Your task to perform on an android device: Search for sushi restaurants on Maps Image 0: 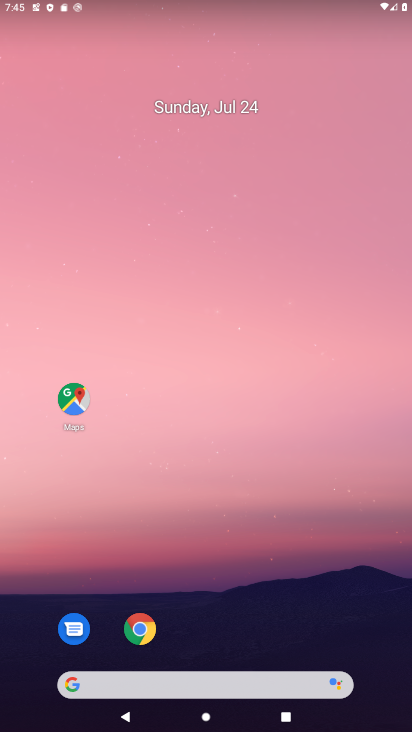
Step 0: press home button
Your task to perform on an android device: Search for sushi restaurants on Maps Image 1: 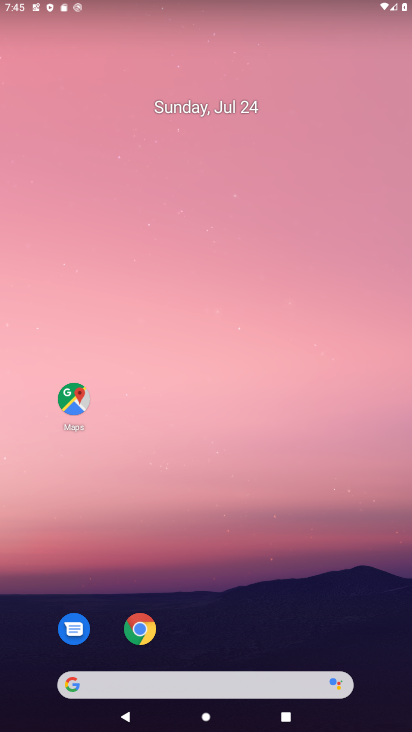
Step 1: drag from (368, 634) to (355, 101)
Your task to perform on an android device: Search for sushi restaurants on Maps Image 2: 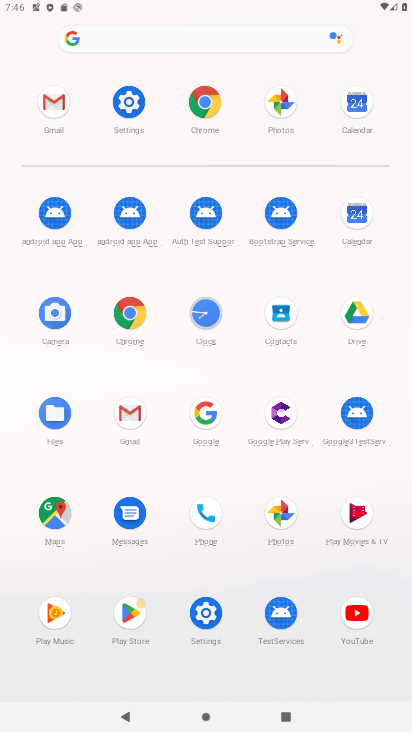
Step 2: click (58, 516)
Your task to perform on an android device: Search for sushi restaurants on Maps Image 3: 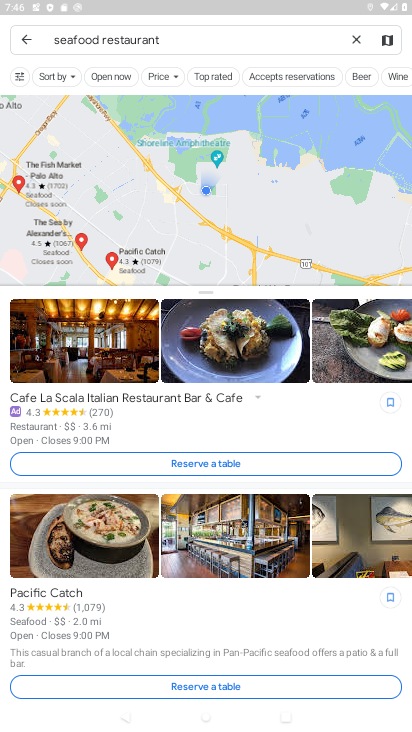
Step 3: press back button
Your task to perform on an android device: Search for sushi restaurants on Maps Image 4: 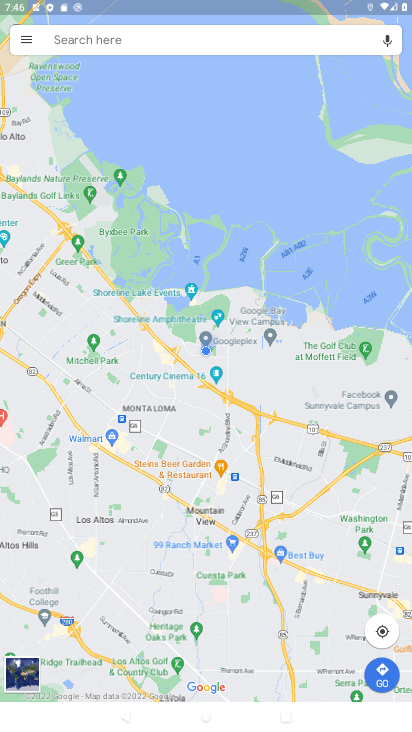
Step 4: click (252, 43)
Your task to perform on an android device: Search for sushi restaurants on Maps Image 5: 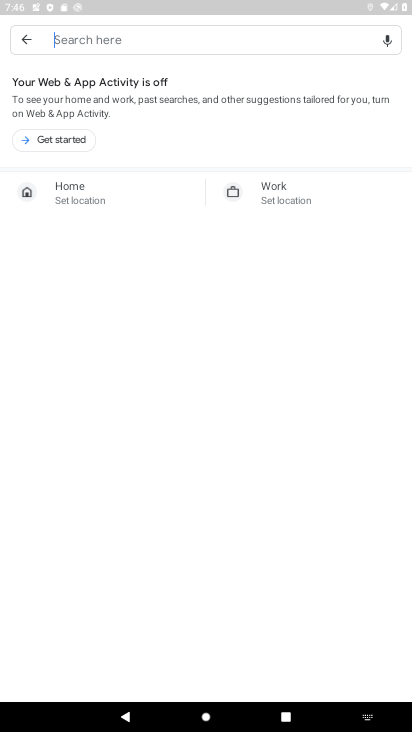
Step 5: type "sushi restaurants"
Your task to perform on an android device: Search for sushi restaurants on Maps Image 6: 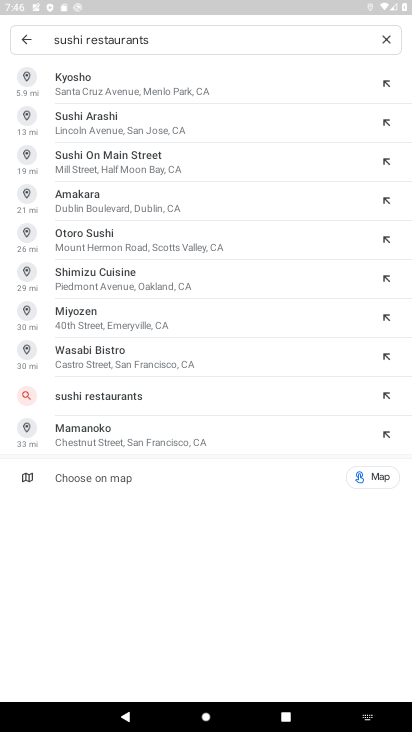
Step 6: click (210, 27)
Your task to perform on an android device: Search for sushi restaurants on Maps Image 7: 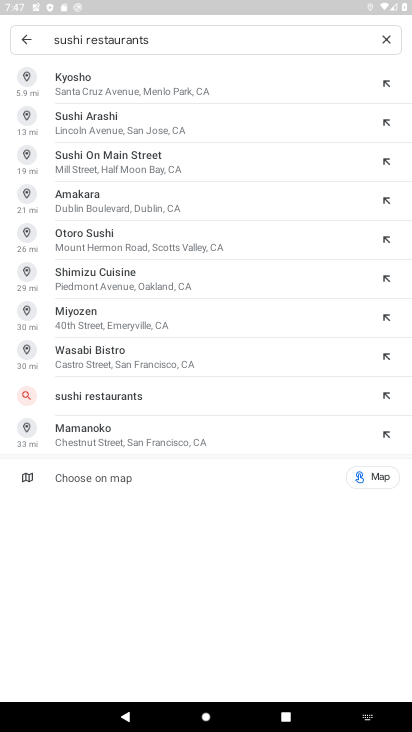
Step 7: click (244, 401)
Your task to perform on an android device: Search for sushi restaurants on Maps Image 8: 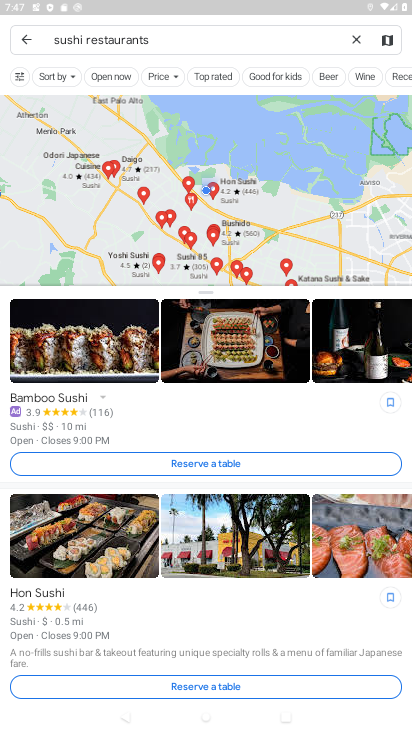
Step 8: task complete